Your task to perform on an android device: search for starred emails in the gmail app Image 0: 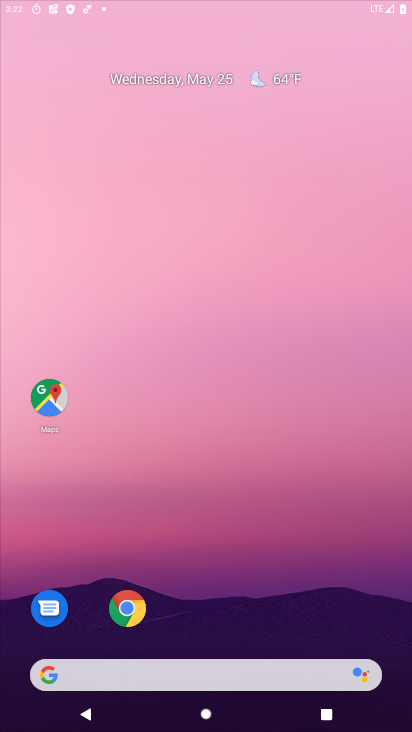
Step 0: press home button
Your task to perform on an android device: search for starred emails in the gmail app Image 1: 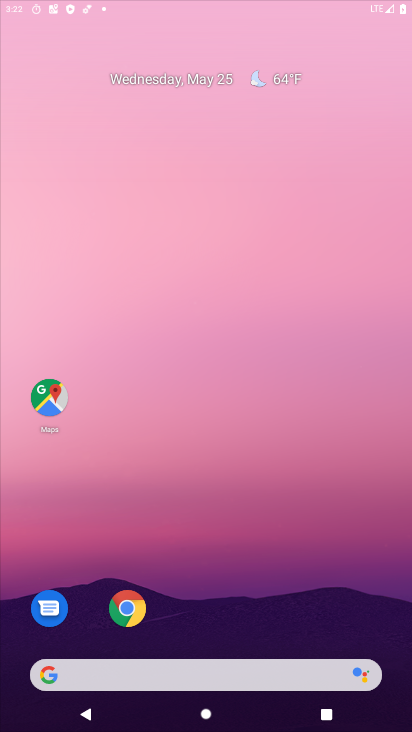
Step 1: click (264, 84)
Your task to perform on an android device: search for starred emails in the gmail app Image 2: 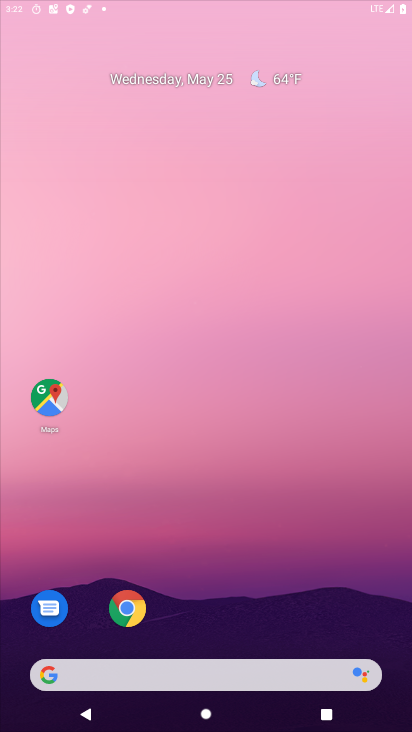
Step 2: drag from (255, 464) to (322, 133)
Your task to perform on an android device: search for starred emails in the gmail app Image 3: 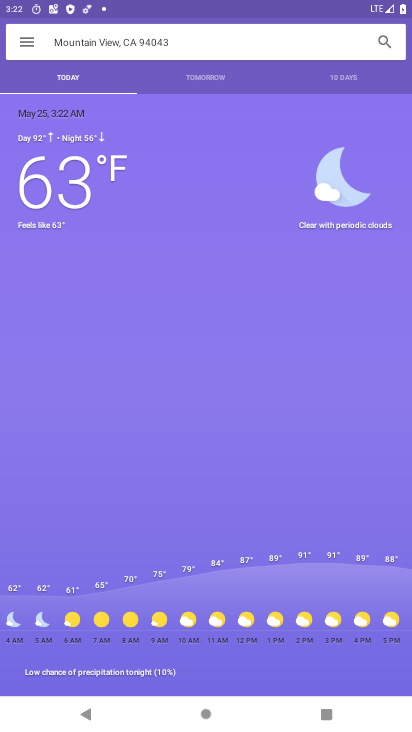
Step 3: press home button
Your task to perform on an android device: search for starred emails in the gmail app Image 4: 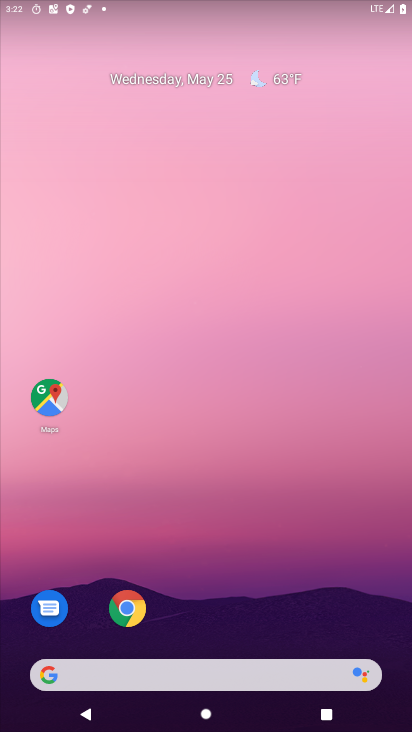
Step 4: drag from (272, 609) to (311, 178)
Your task to perform on an android device: search for starred emails in the gmail app Image 5: 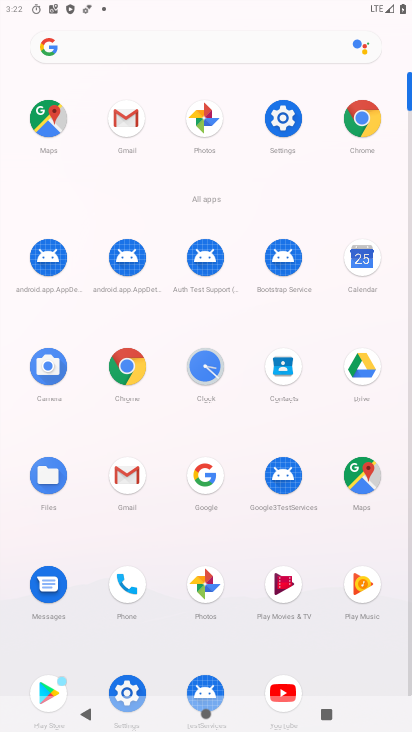
Step 5: click (124, 123)
Your task to perform on an android device: search for starred emails in the gmail app Image 6: 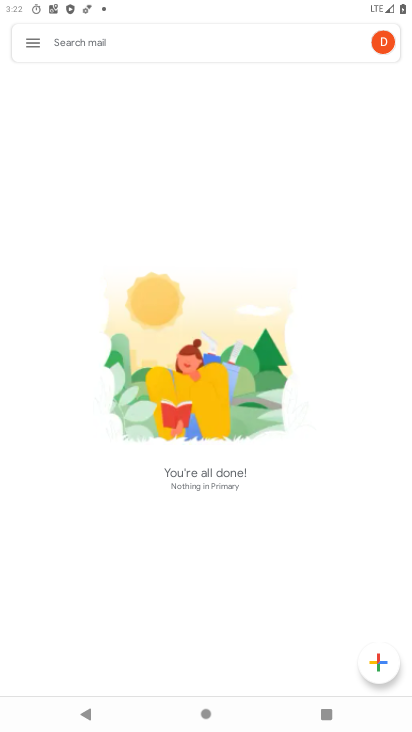
Step 6: click (33, 34)
Your task to perform on an android device: search for starred emails in the gmail app Image 7: 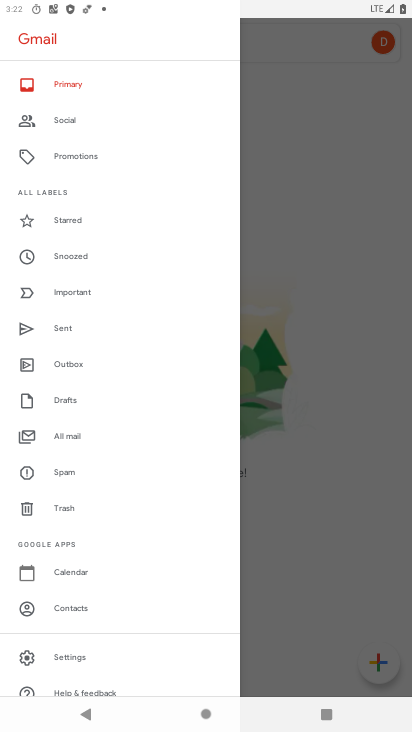
Step 7: click (68, 222)
Your task to perform on an android device: search for starred emails in the gmail app Image 8: 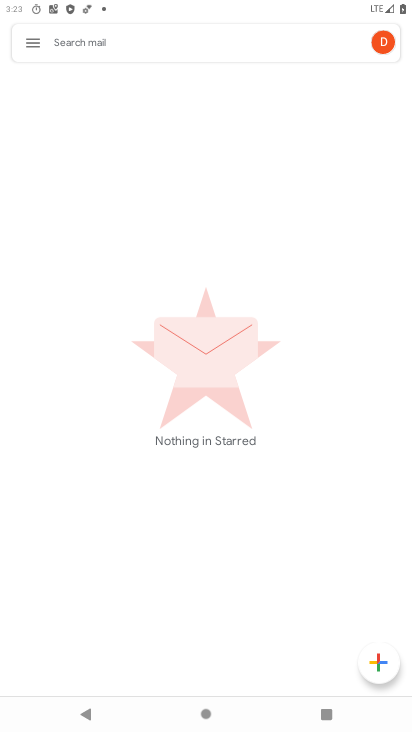
Step 8: task complete